Your task to perform on an android device: Open Google Chrome Image 0: 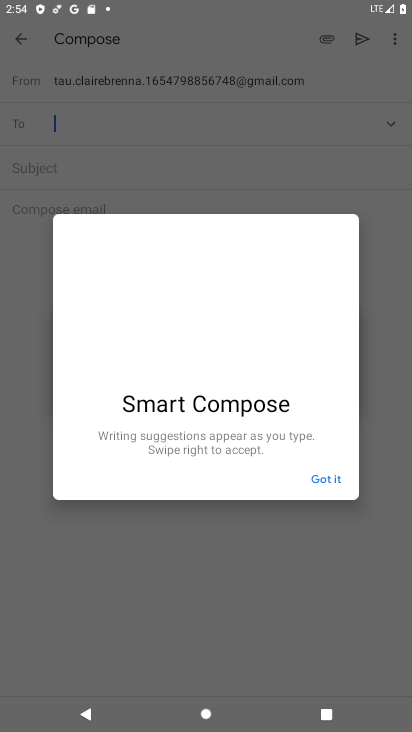
Step 0: press home button
Your task to perform on an android device: Open Google Chrome Image 1: 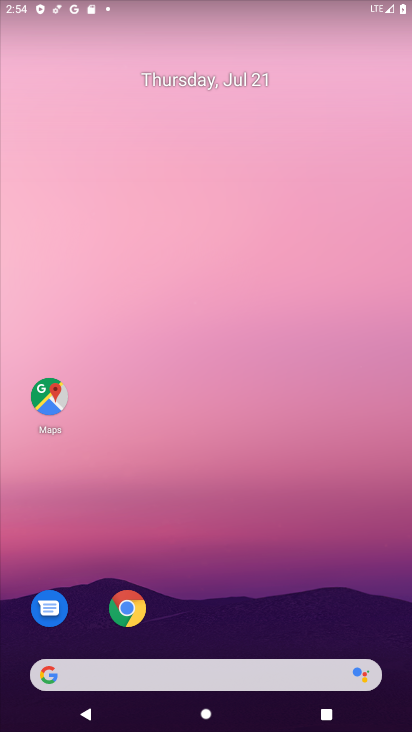
Step 1: click (103, 615)
Your task to perform on an android device: Open Google Chrome Image 2: 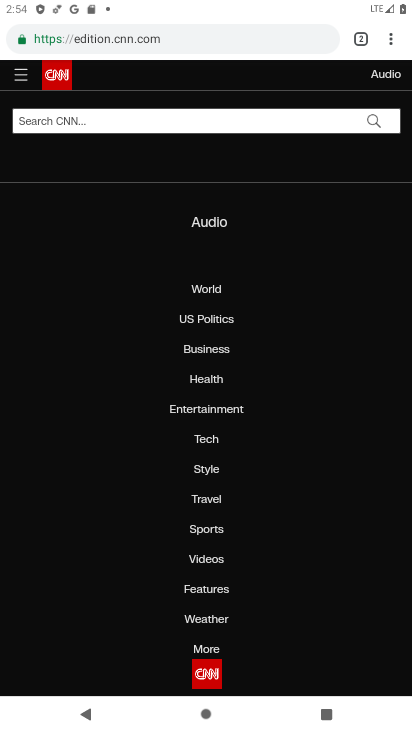
Step 2: task complete